Your task to perform on an android device: turn off sleep mode Image 0: 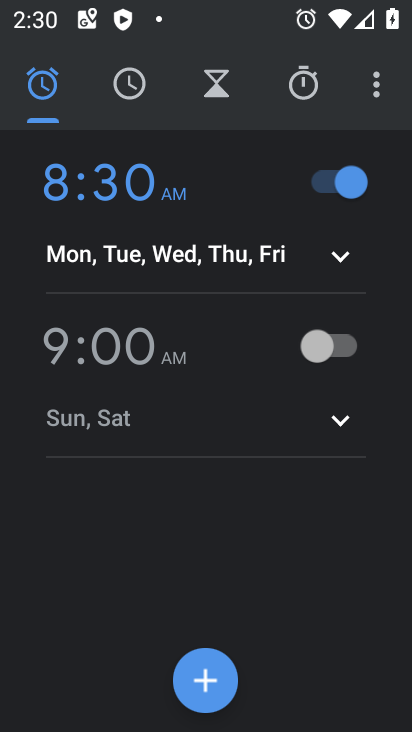
Step 0: press home button
Your task to perform on an android device: turn off sleep mode Image 1: 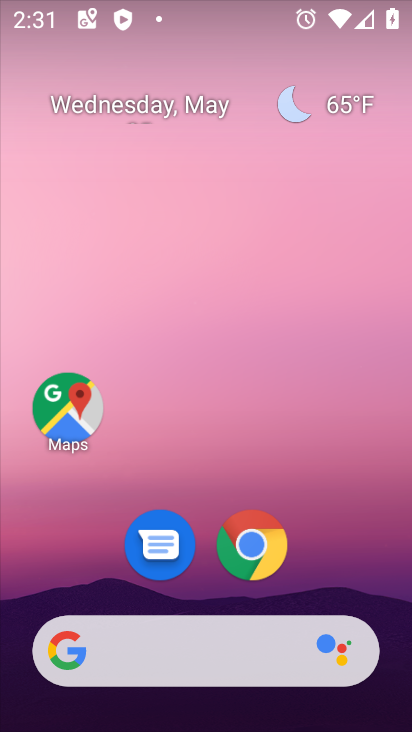
Step 1: drag from (356, 572) to (311, 0)
Your task to perform on an android device: turn off sleep mode Image 2: 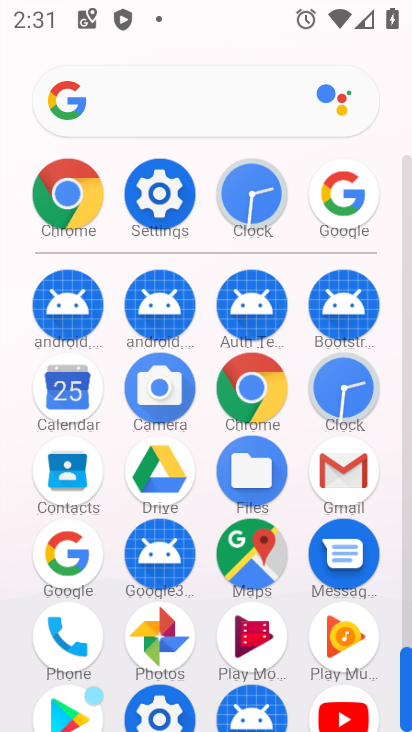
Step 2: click (164, 172)
Your task to perform on an android device: turn off sleep mode Image 3: 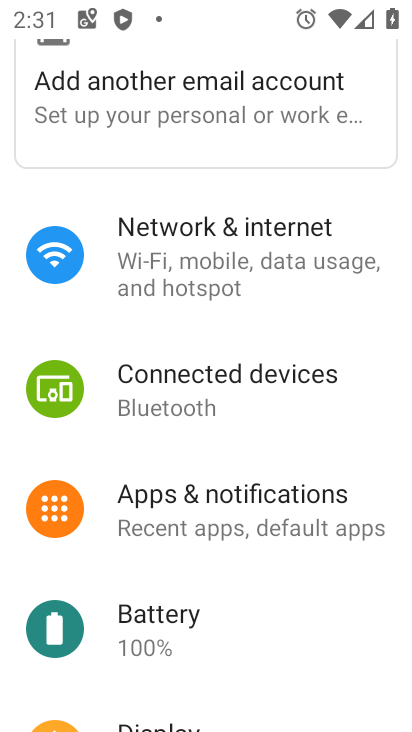
Step 3: click (232, 719)
Your task to perform on an android device: turn off sleep mode Image 4: 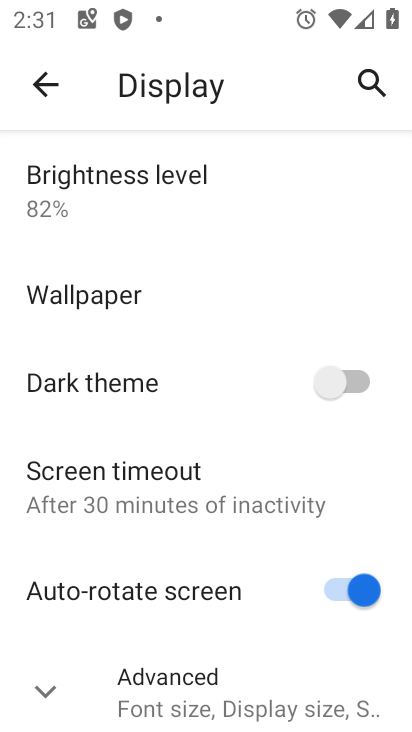
Step 4: task complete